Your task to perform on an android device: search for starred emails in the gmail app Image 0: 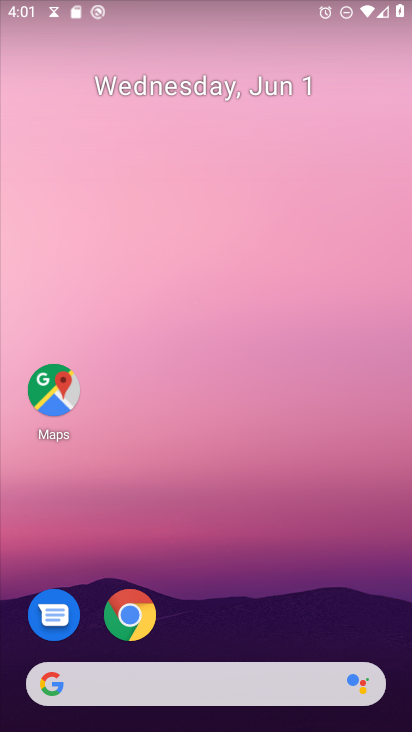
Step 0: drag from (197, 646) to (199, 170)
Your task to perform on an android device: search for starred emails in the gmail app Image 1: 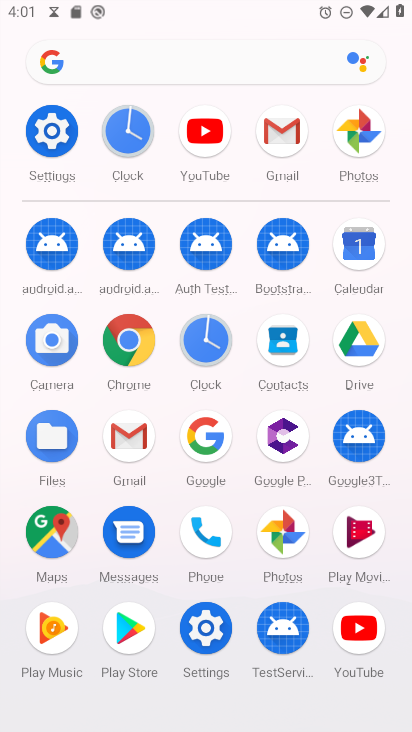
Step 1: click (124, 435)
Your task to perform on an android device: search for starred emails in the gmail app Image 2: 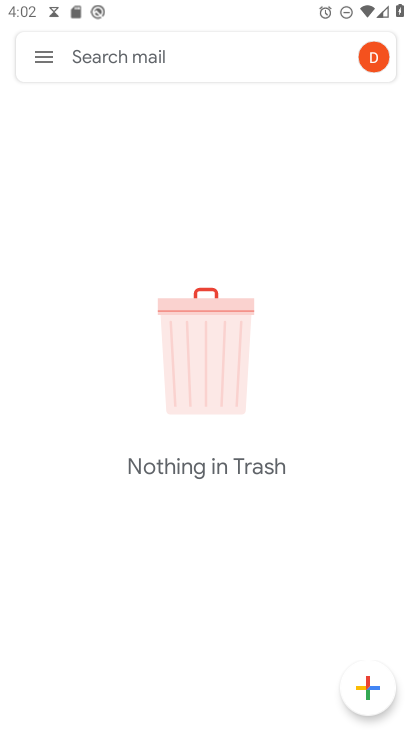
Step 2: click (47, 60)
Your task to perform on an android device: search for starred emails in the gmail app Image 3: 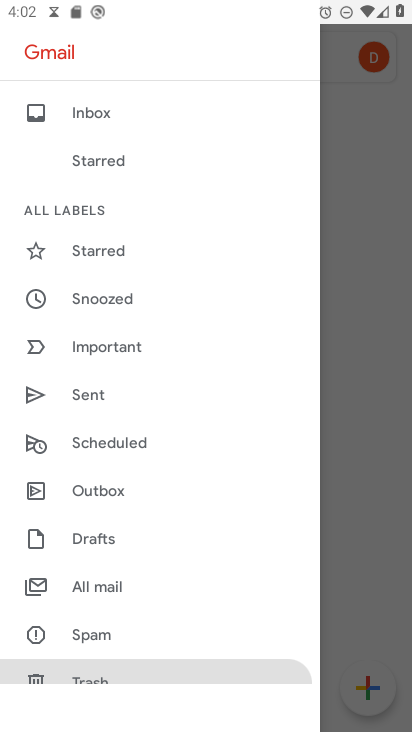
Step 3: drag from (143, 631) to (189, 111)
Your task to perform on an android device: search for starred emails in the gmail app Image 4: 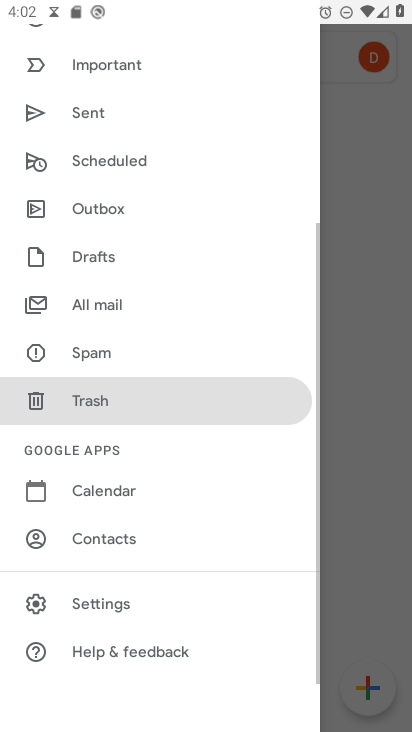
Step 4: click (133, 595)
Your task to perform on an android device: search for starred emails in the gmail app Image 5: 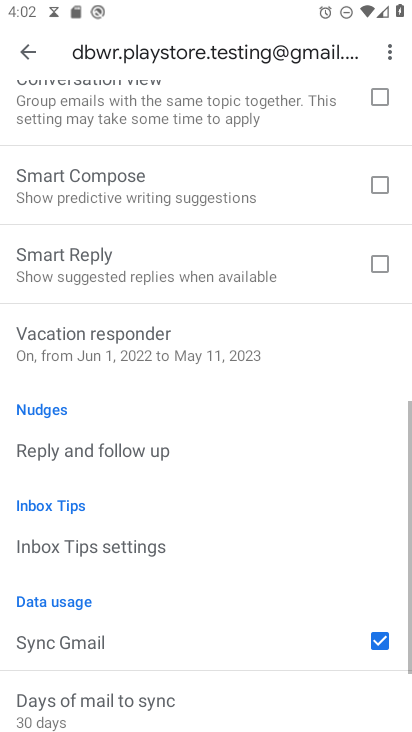
Step 5: click (41, 50)
Your task to perform on an android device: search for starred emails in the gmail app Image 6: 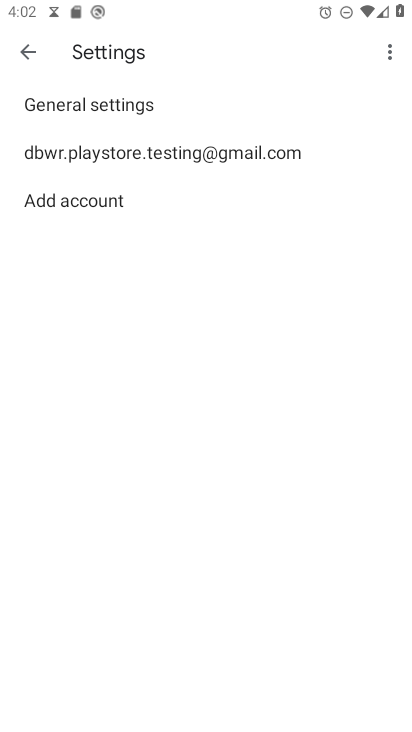
Step 6: click (34, 55)
Your task to perform on an android device: search for starred emails in the gmail app Image 7: 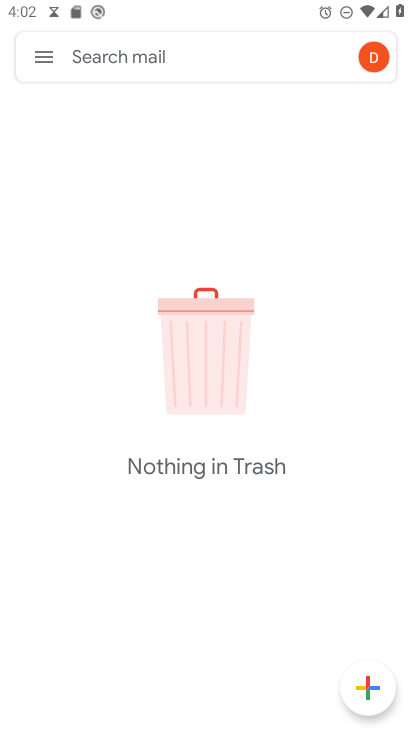
Step 7: click (35, 54)
Your task to perform on an android device: search for starred emails in the gmail app Image 8: 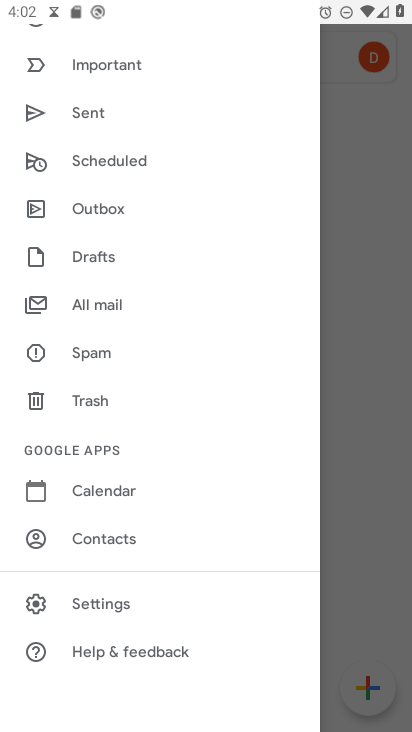
Step 8: drag from (99, 133) to (126, 526)
Your task to perform on an android device: search for starred emails in the gmail app Image 9: 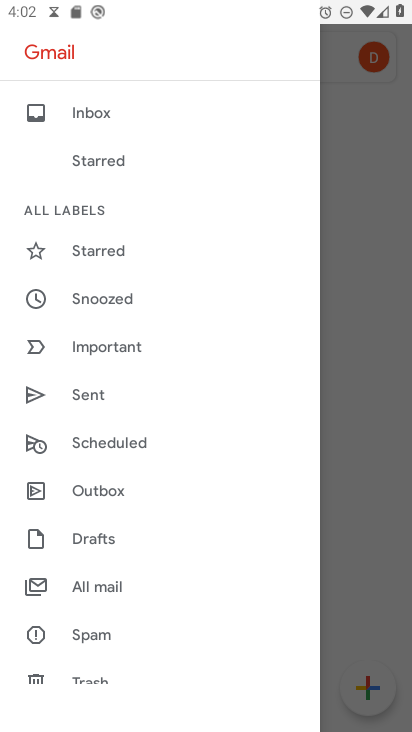
Step 9: click (100, 248)
Your task to perform on an android device: search for starred emails in the gmail app Image 10: 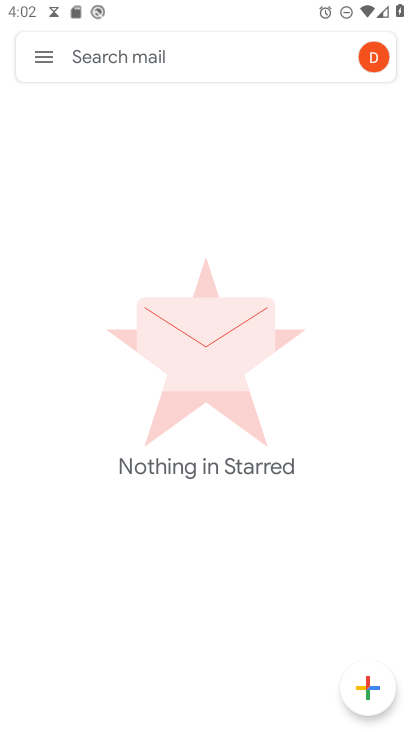
Step 10: task complete